Your task to perform on an android device: Open Google Image 0: 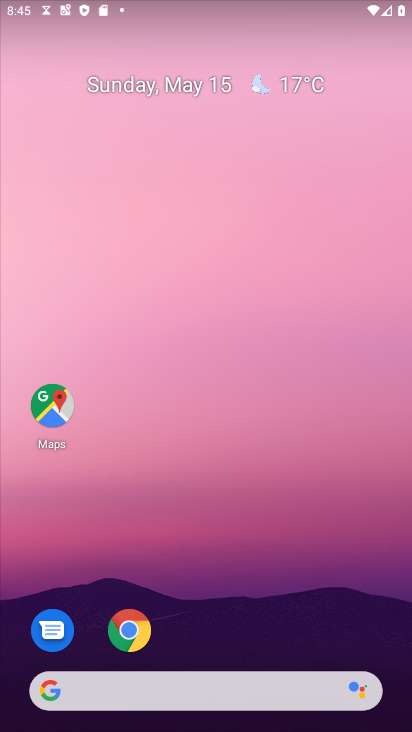
Step 0: drag from (330, 545) to (376, 111)
Your task to perform on an android device: Open Google Image 1: 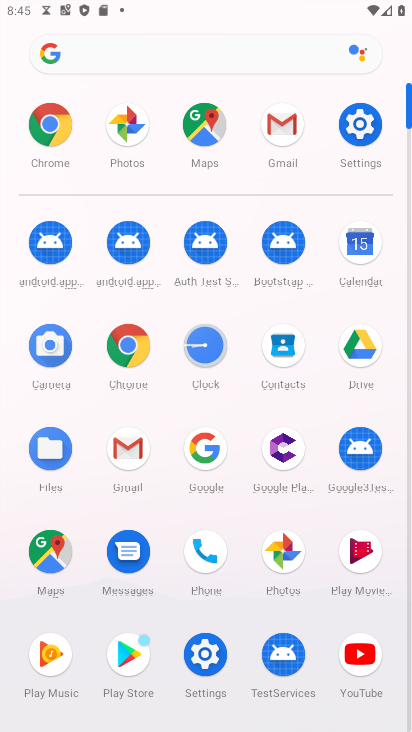
Step 1: click (218, 444)
Your task to perform on an android device: Open Google Image 2: 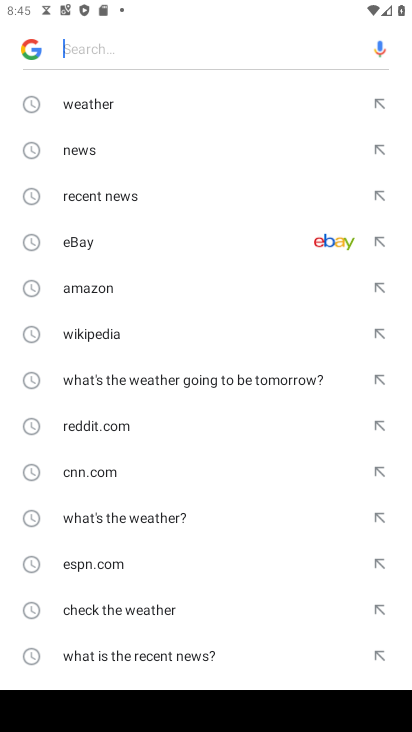
Step 2: task complete